Your task to perform on an android device: Go to calendar. Show me events next week Image 0: 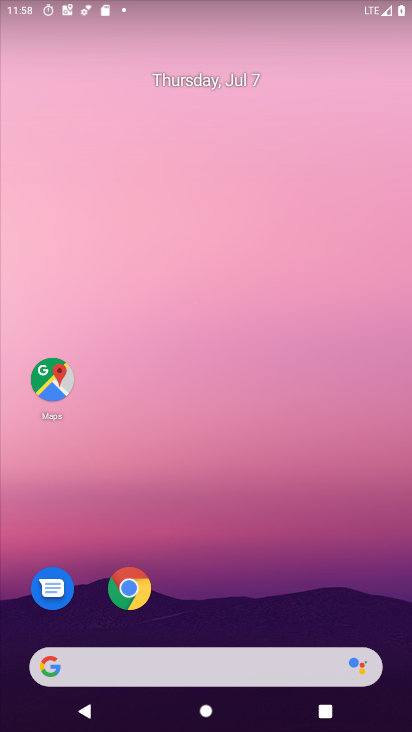
Step 0: press home button
Your task to perform on an android device: Go to calendar. Show me events next week Image 1: 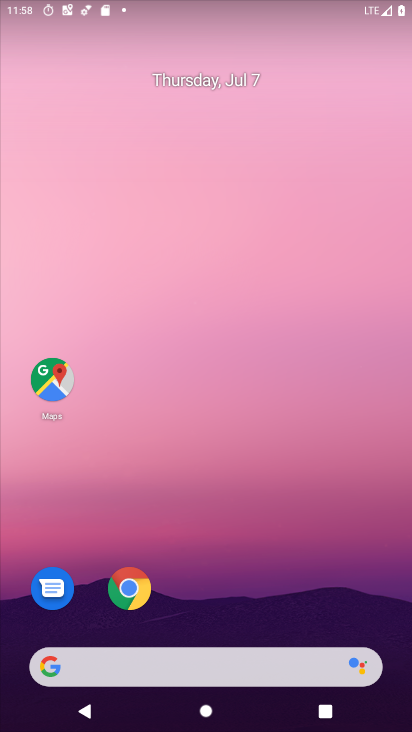
Step 1: drag from (213, 674) to (202, 107)
Your task to perform on an android device: Go to calendar. Show me events next week Image 2: 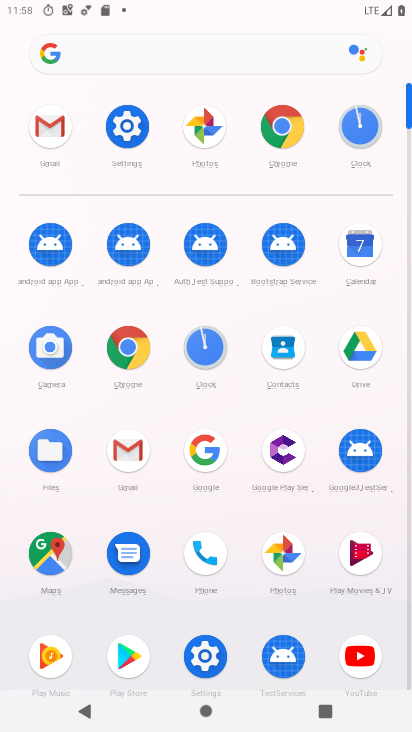
Step 2: click (353, 245)
Your task to perform on an android device: Go to calendar. Show me events next week Image 3: 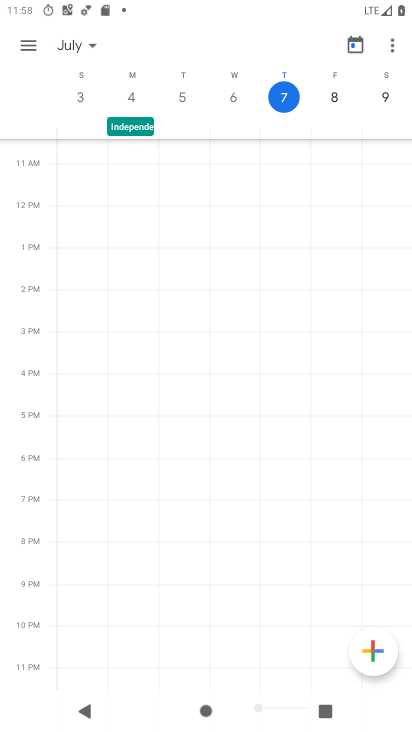
Step 3: click (75, 41)
Your task to perform on an android device: Go to calendar. Show me events next week Image 4: 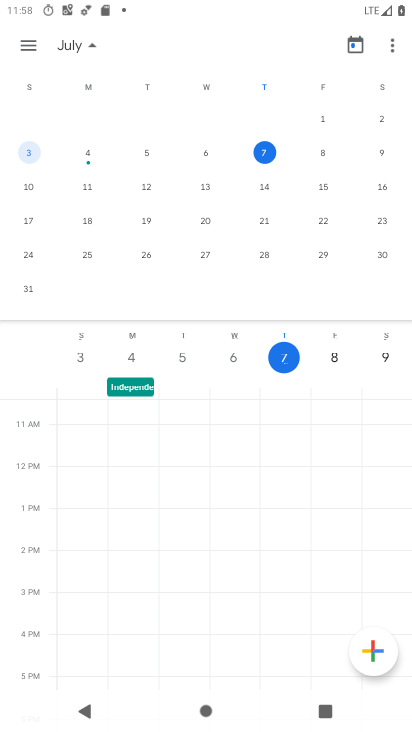
Step 4: click (30, 186)
Your task to perform on an android device: Go to calendar. Show me events next week Image 5: 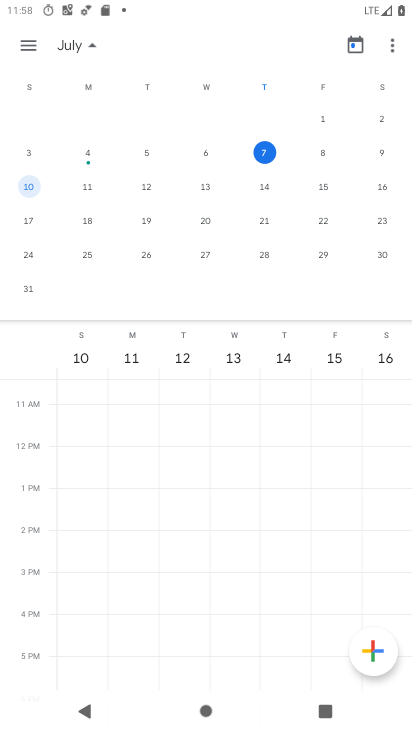
Step 5: click (29, 46)
Your task to perform on an android device: Go to calendar. Show me events next week Image 6: 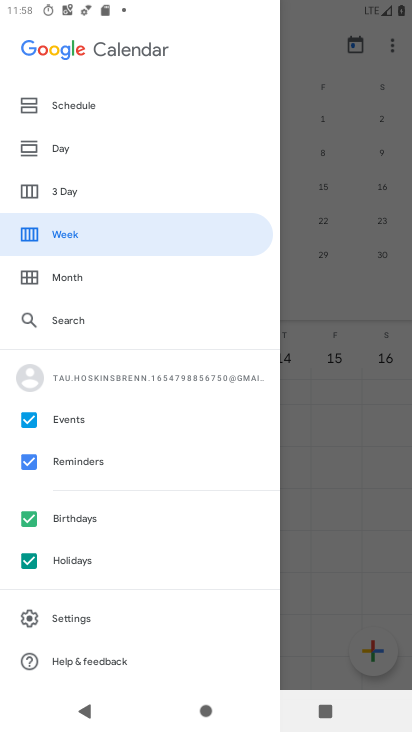
Step 6: click (81, 104)
Your task to perform on an android device: Go to calendar. Show me events next week Image 7: 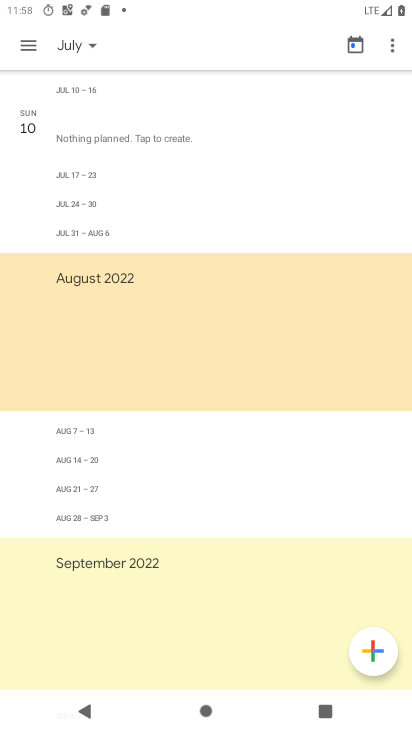
Step 7: task complete